Your task to perform on an android device: Open Google Chrome and open the bookmarks view Image 0: 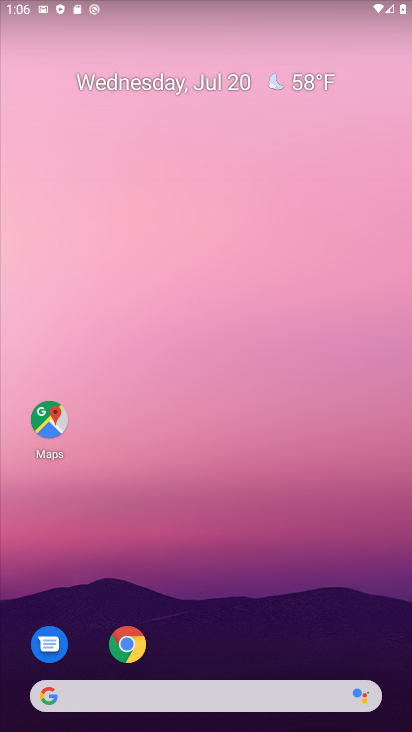
Step 0: click (132, 645)
Your task to perform on an android device: Open Google Chrome and open the bookmarks view Image 1: 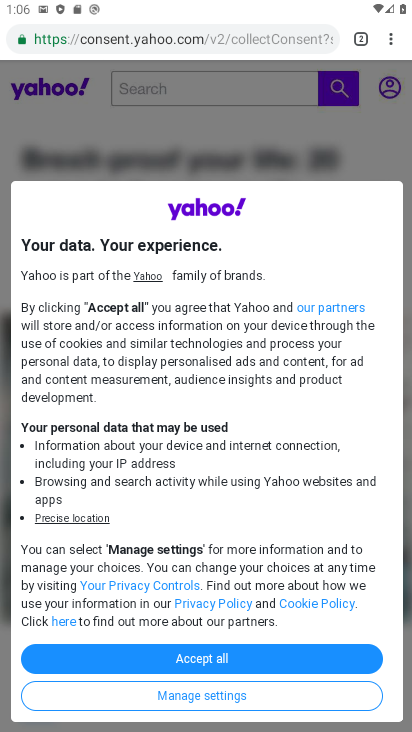
Step 1: click (384, 40)
Your task to perform on an android device: Open Google Chrome and open the bookmarks view Image 2: 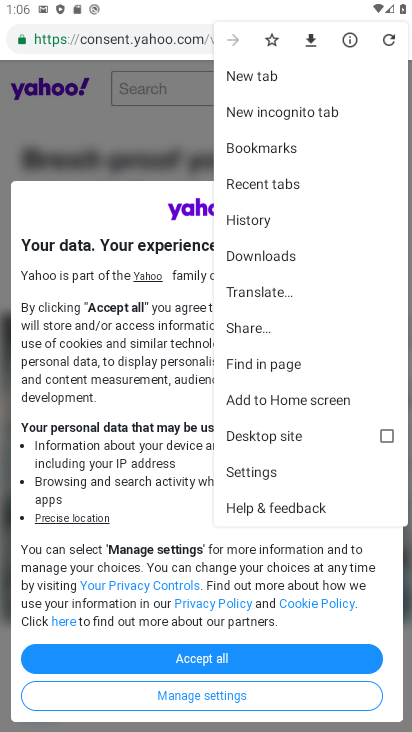
Step 2: click (256, 148)
Your task to perform on an android device: Open Google Chrome and open the bookmarks view Image 3: 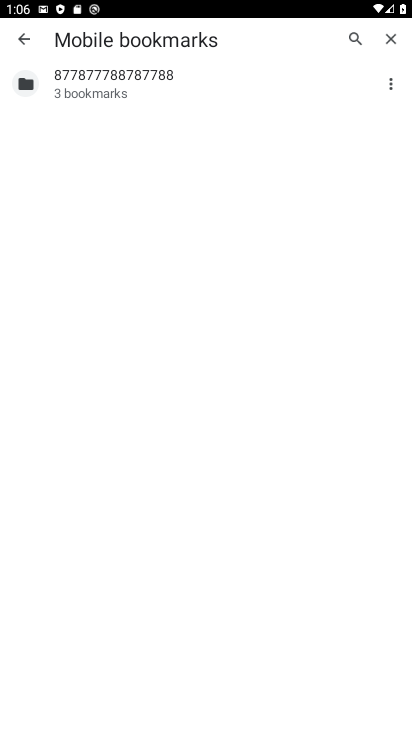
Step 3: click (161, 85)
Your task to perform on an android device: Open Google Chrome and open the bookmarks view Image 4: 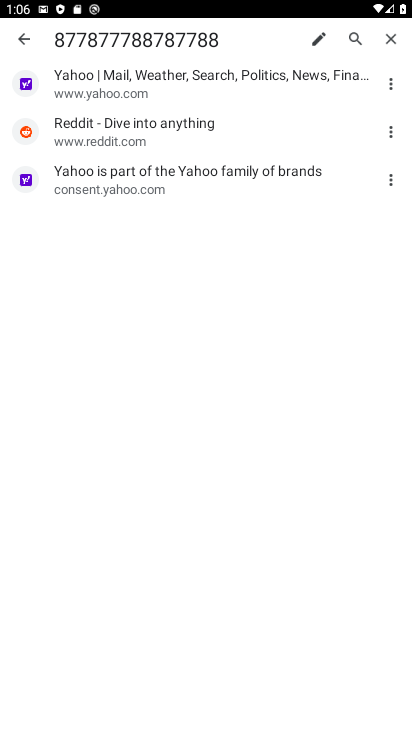
Step 4: click (114, 84)
Your task to perform on an android device: Open Google Chrome and open the bookmarks view Image 5: 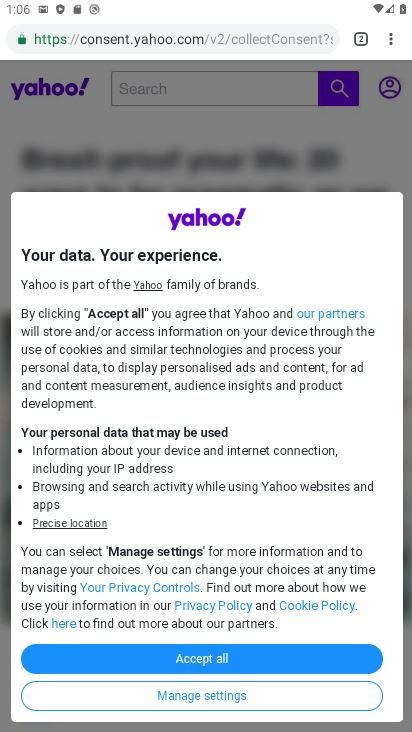
Step 5: task complete